Your task to perform on an android device: open app "Google Chrome" (install if not already installed) Image 0: 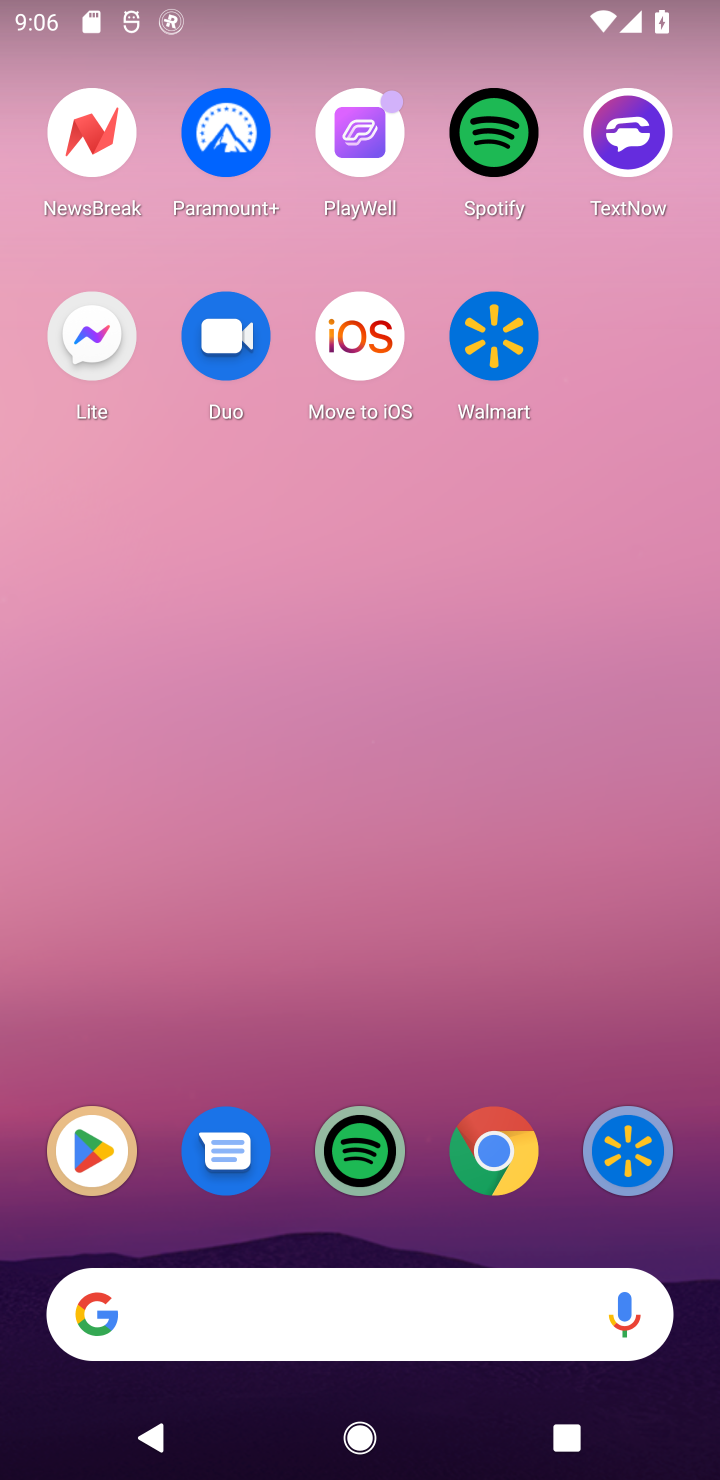
Step 0: click (83, 1169)
Your task to perform on an android device: open app "Google Chrome" (install if not already installed) Image 1: 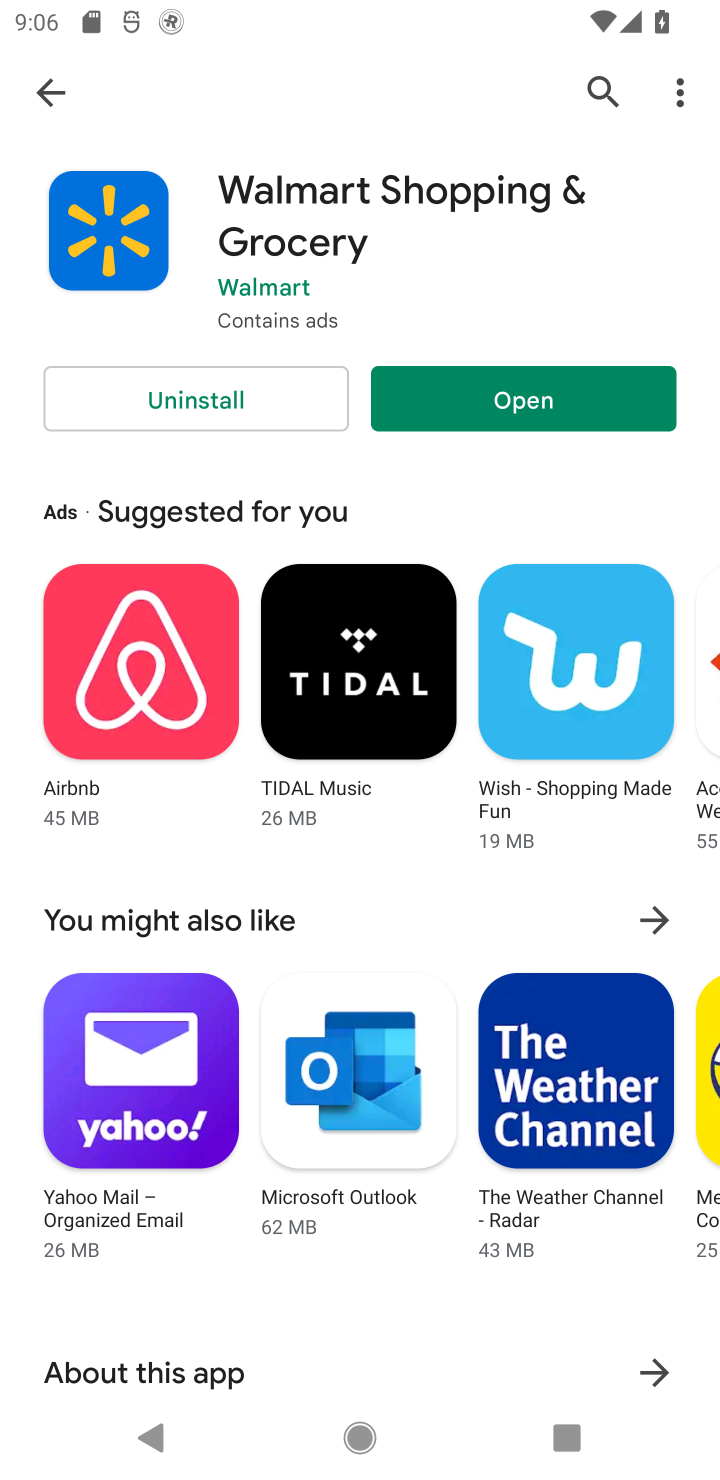
Step 1: click (604, 66)
Your task to perform on an android device: open app "Google Chrome" (install if not already installed) Image 2: 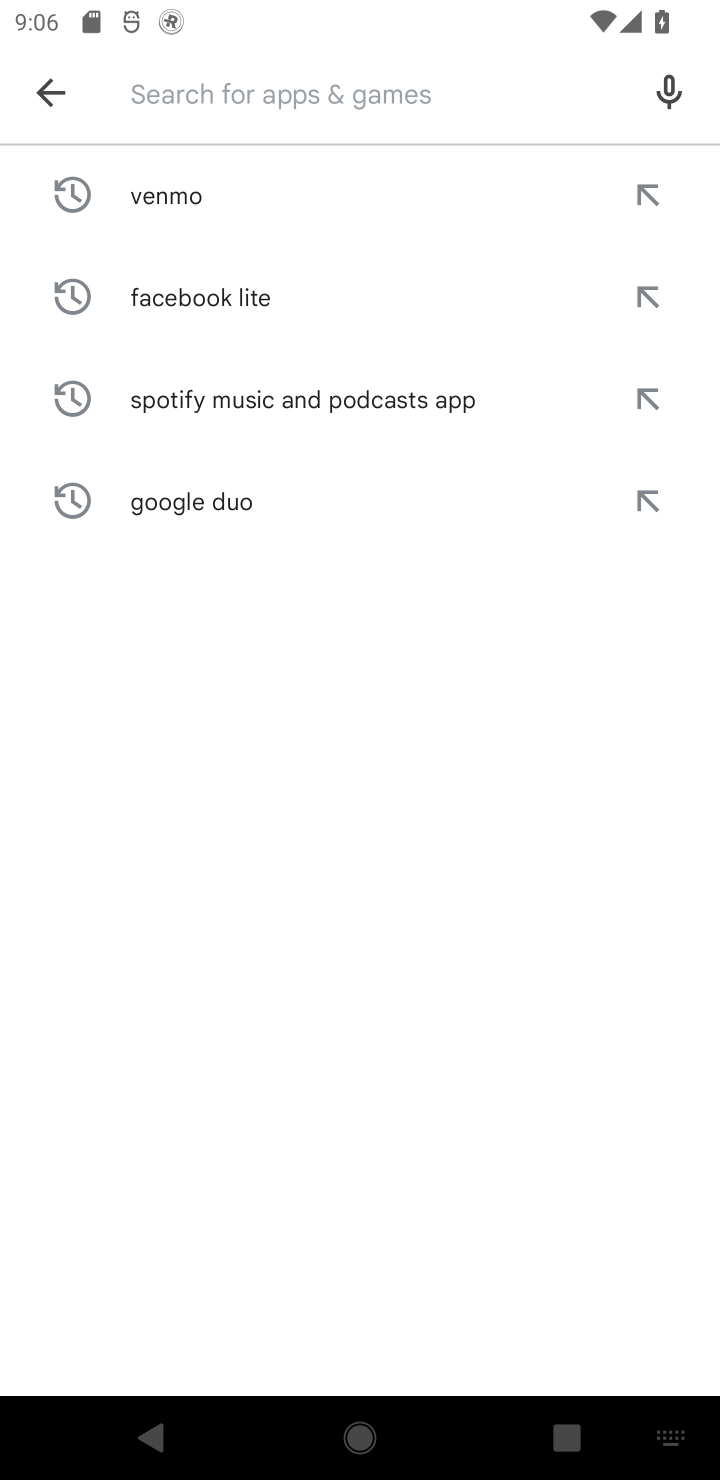
Step 2: type "Google Chrome"
Your task to perform on an android device: open app "Google Chrome" (install if not already installed) Image 3: 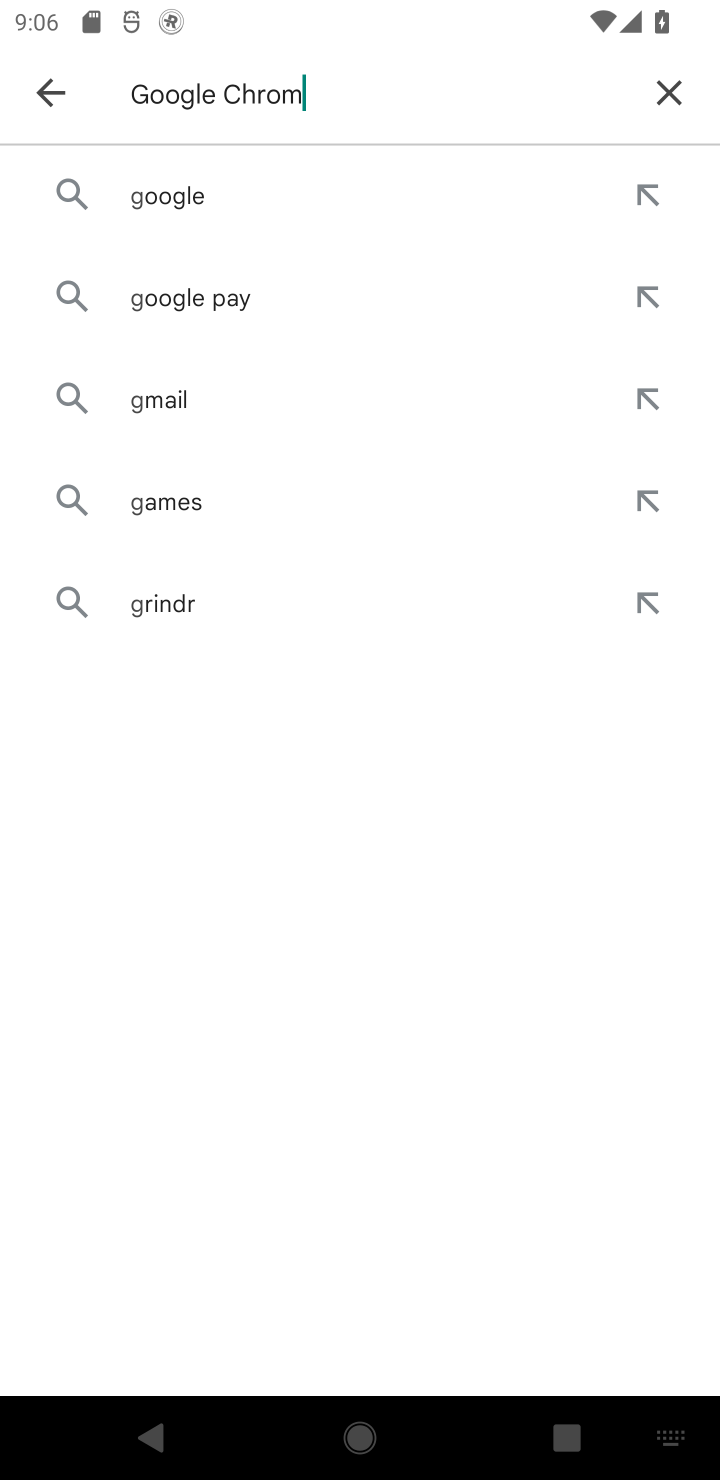
Step 3: type ""
Your task to perform on an android device: open app "Google Chrome" (install if not already installed) Image 4: 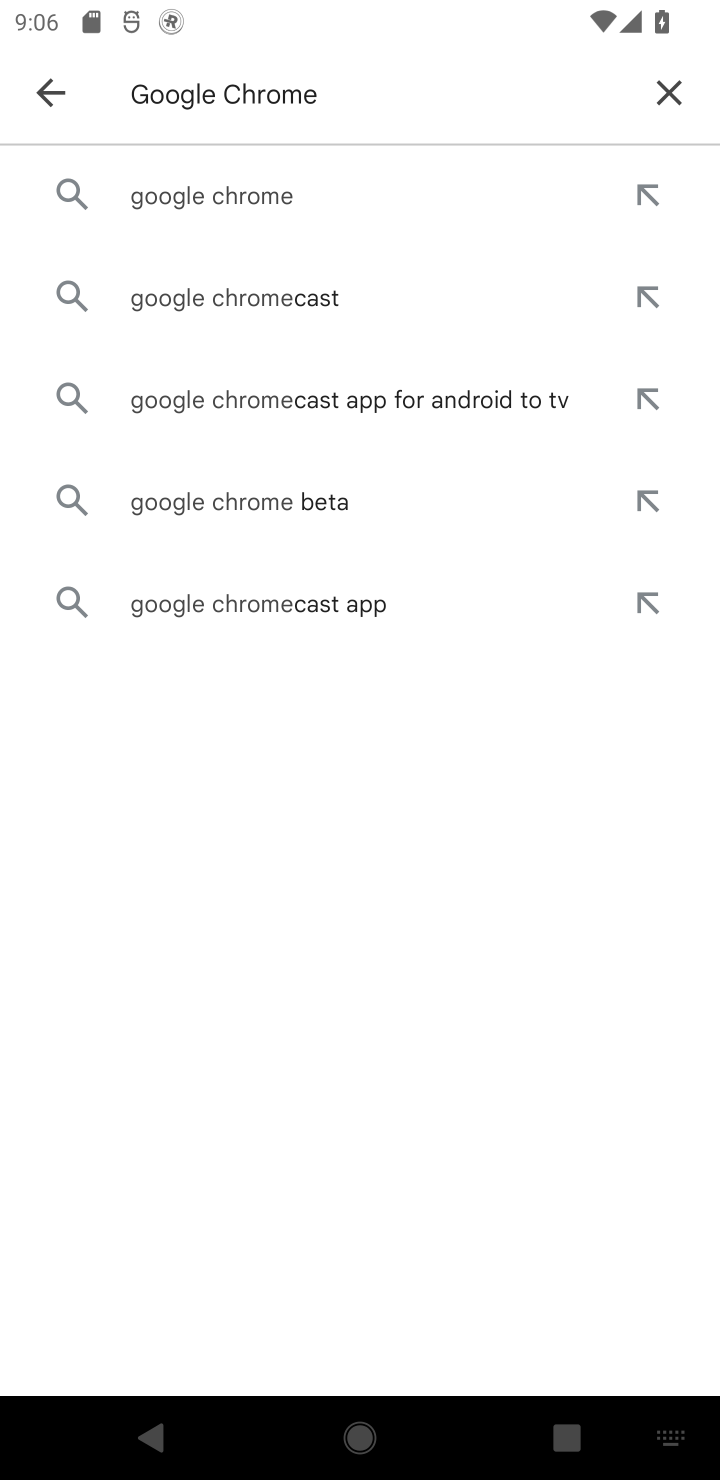
Step 4: click (254, 214)
Your task to perform on an android device: open app "Google Chrome" (install if not already installed) Image 5: 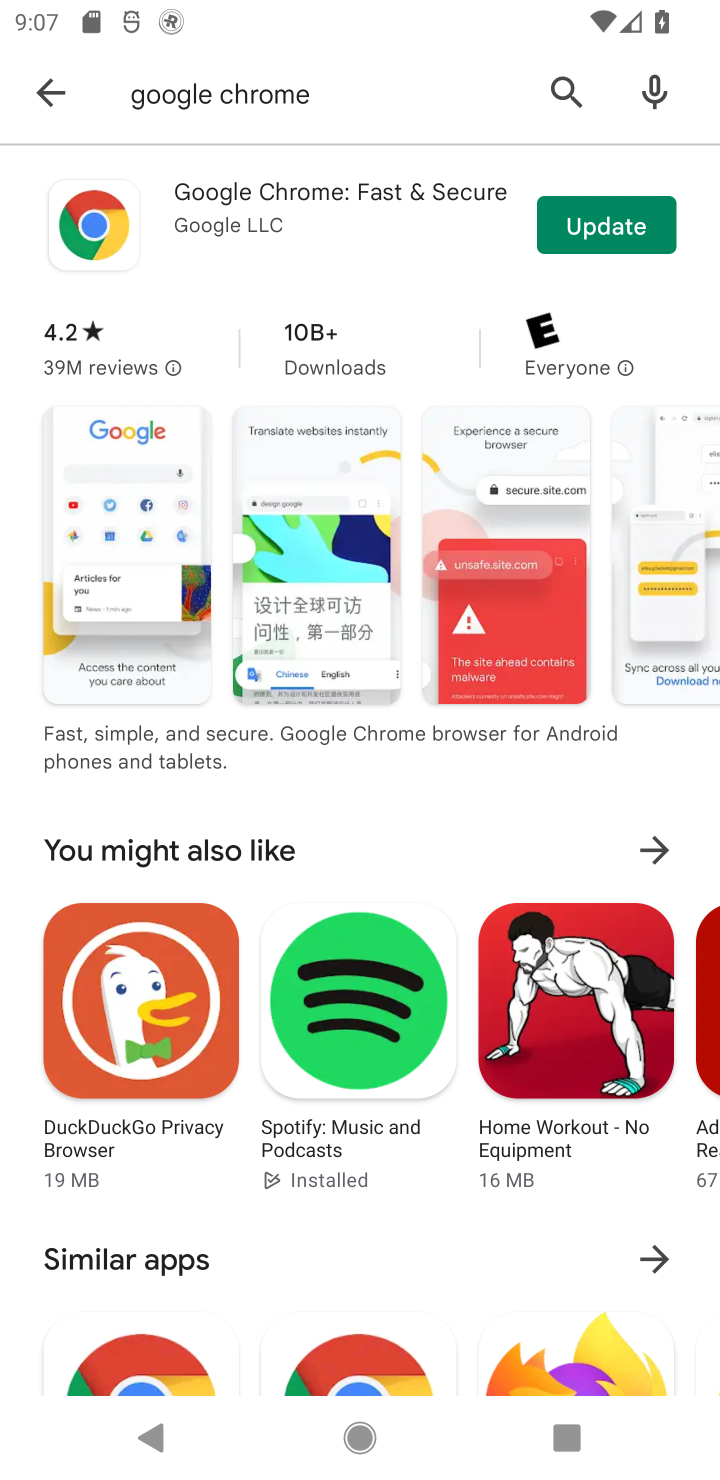
Step 5: click (303, 228)
Your task to perform on an android device: open app "Google Chrome" (install if not already installed) Image 6: 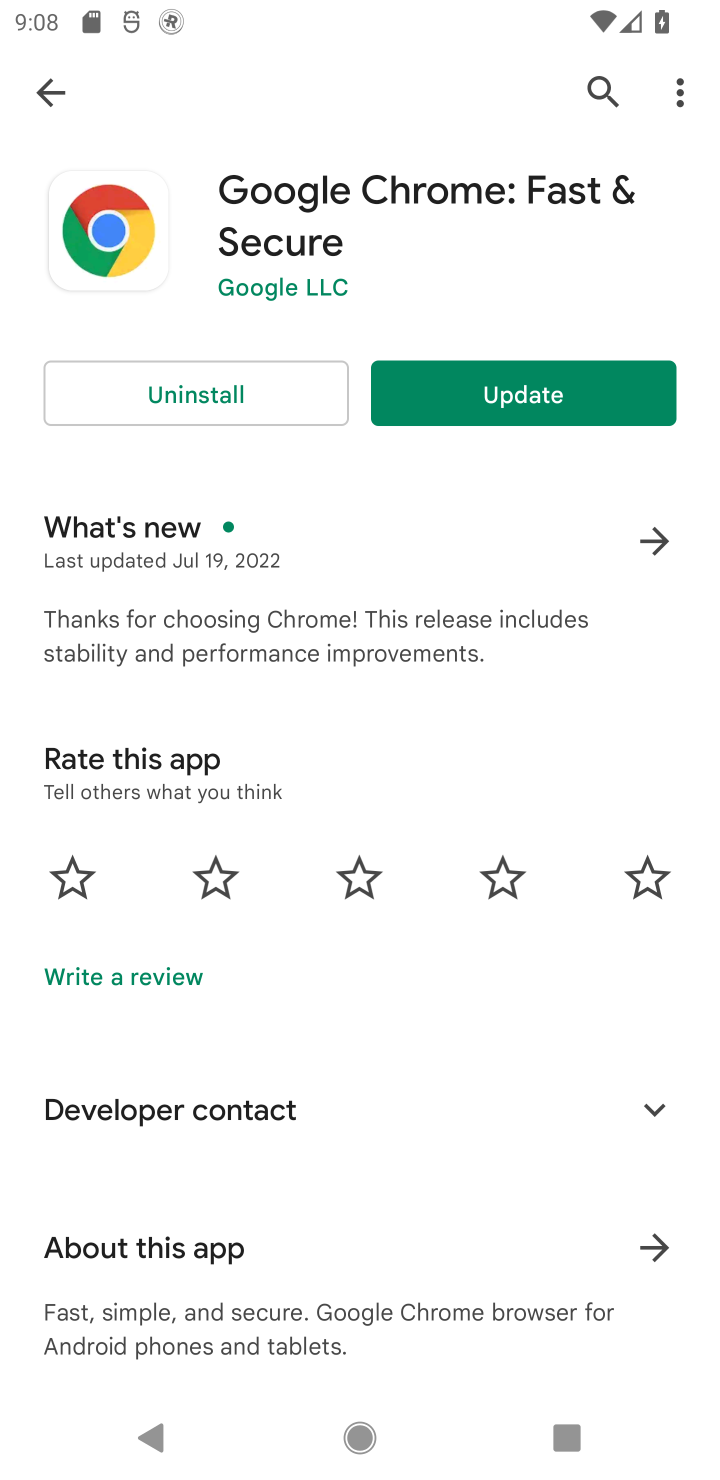
Step 6: task complete